Your task to perform on an android device: add a contact in the contacts app Image 0: 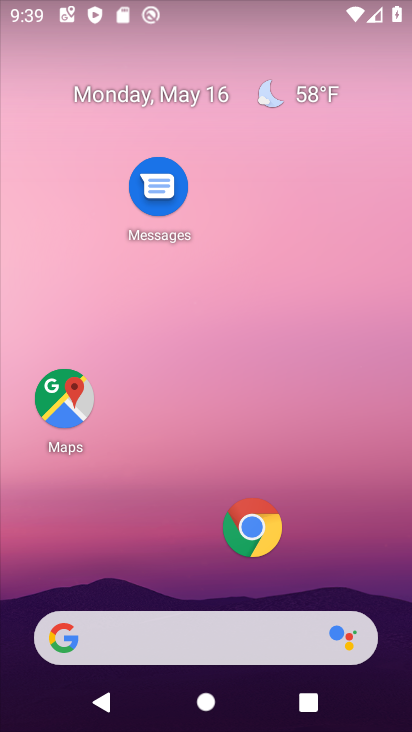
Step 0: drag from (160, 526) to (211, 34)
Your task to perform on an android device: add a contact in the contacts app Image 1: 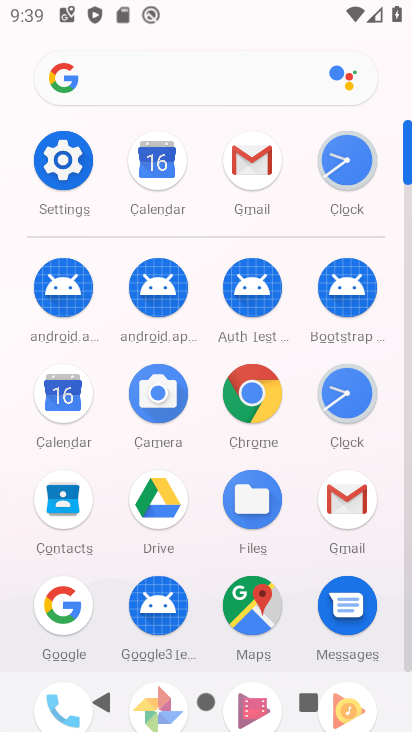
Step 1: click (68, 508)
Your task to perform on an android device: add a contact in the contacts app Image 2: 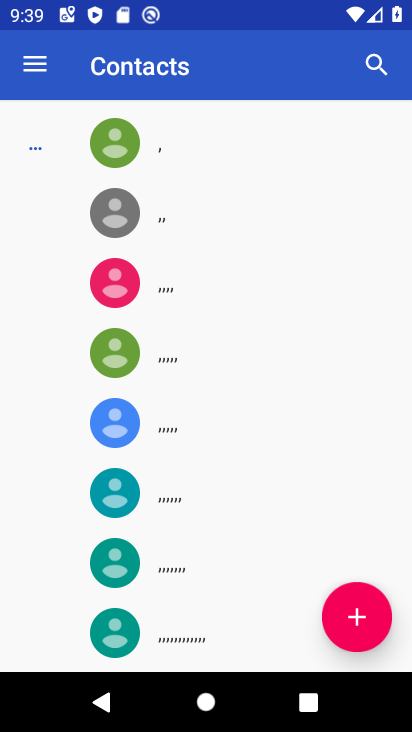
Step 2: click (354, 623)
Your task to perform on an android device: add a contact in the contacts app Image 3: 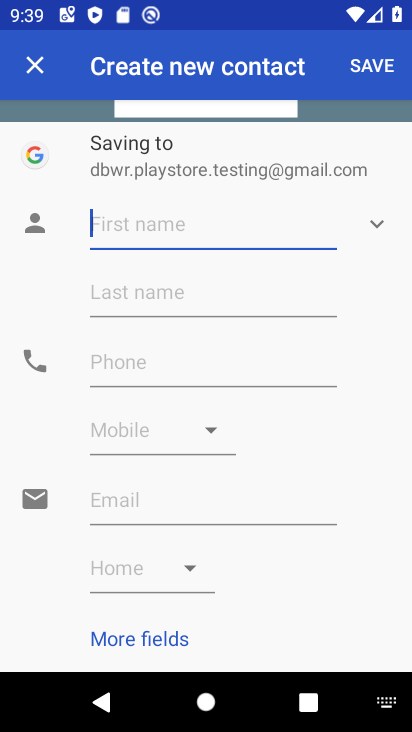
Step 3: type "uyfc,"
Your task to perform on an android device: add a contact in the contacts app Image 4: 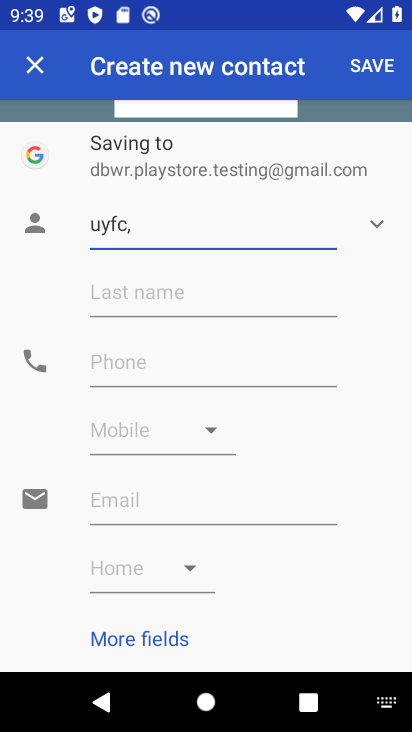
Step 4: click (372, 65)
Your task to perform on an android device: add a contact in the contacts app Image 5: 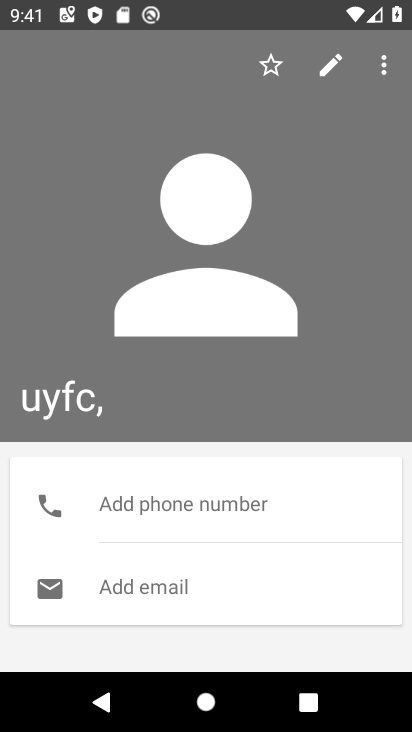
Step 5: task complete